Your task to perform on an android device: Is it going to rain tomorrow? Image 0: 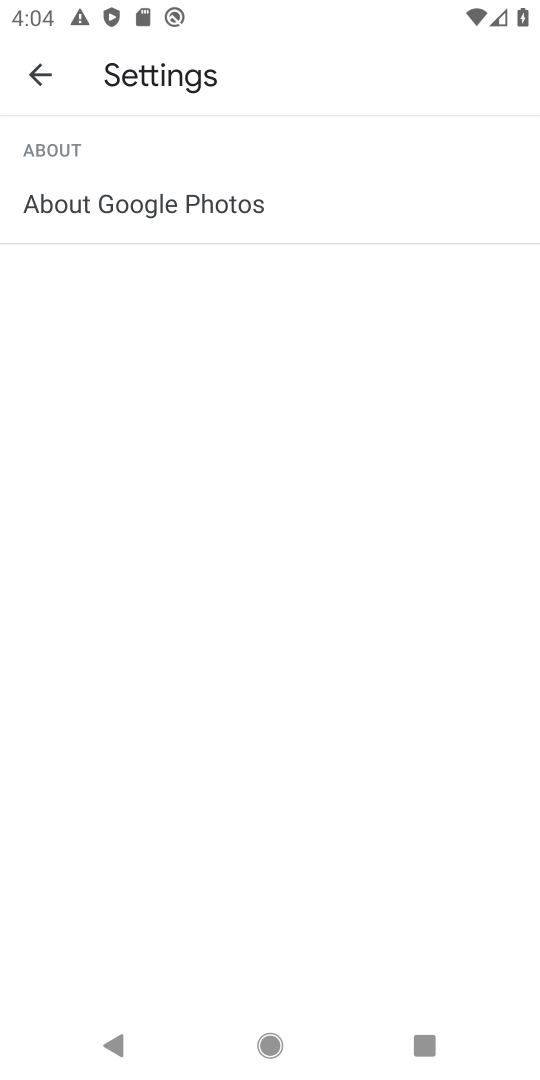
Step 0: press home button
Your task to perform on an android device: Is it going to rain tomorrow? Image 1: 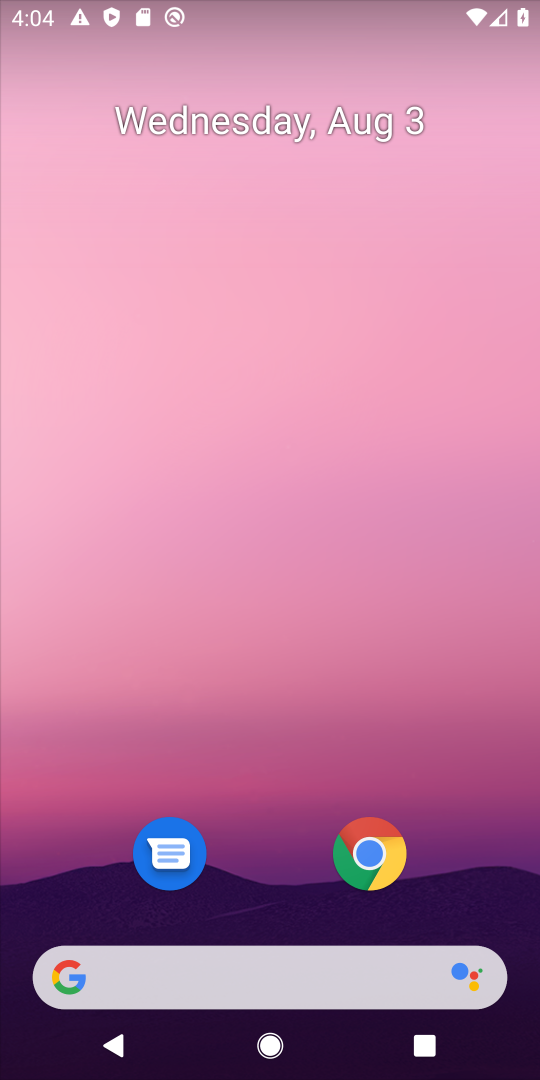
Step 1: drag from (272, 919) to (321, 102)
Your task to perform on an android device: Is it going to rain tomorrow? Image 2: 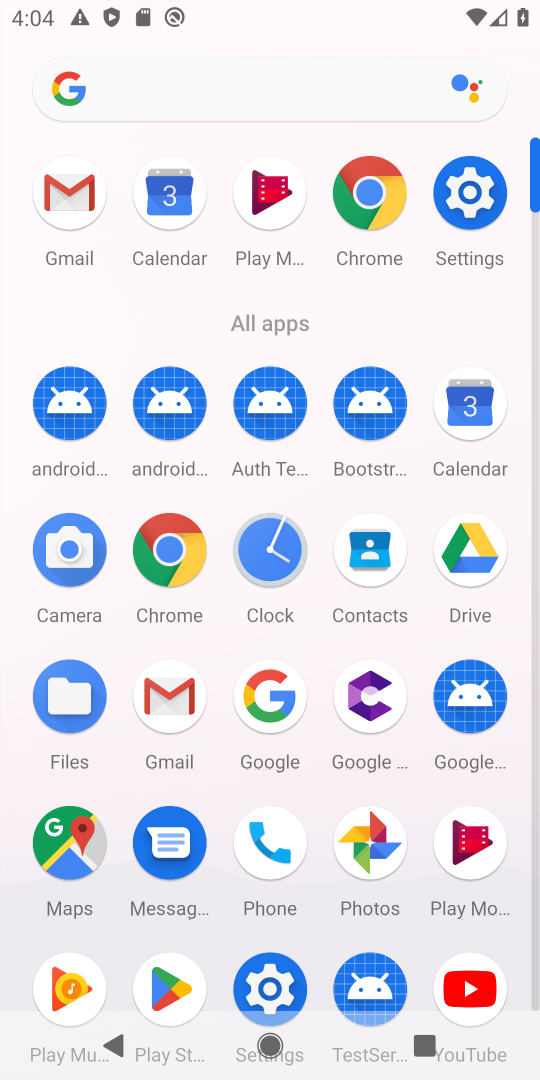
Step 2: click (265, 707)
Your task to perform on an android device: Is it going to rain tomorrow? Image 3: 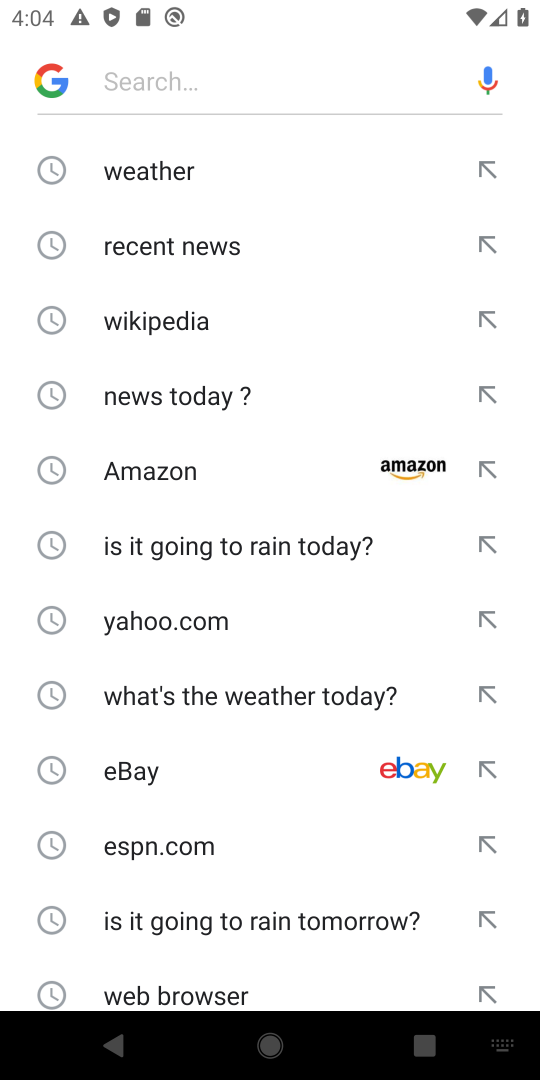
Step 3: click (139, 174)
Your task to perform on an android device: Is it going to rain tomorrow? Image 4: 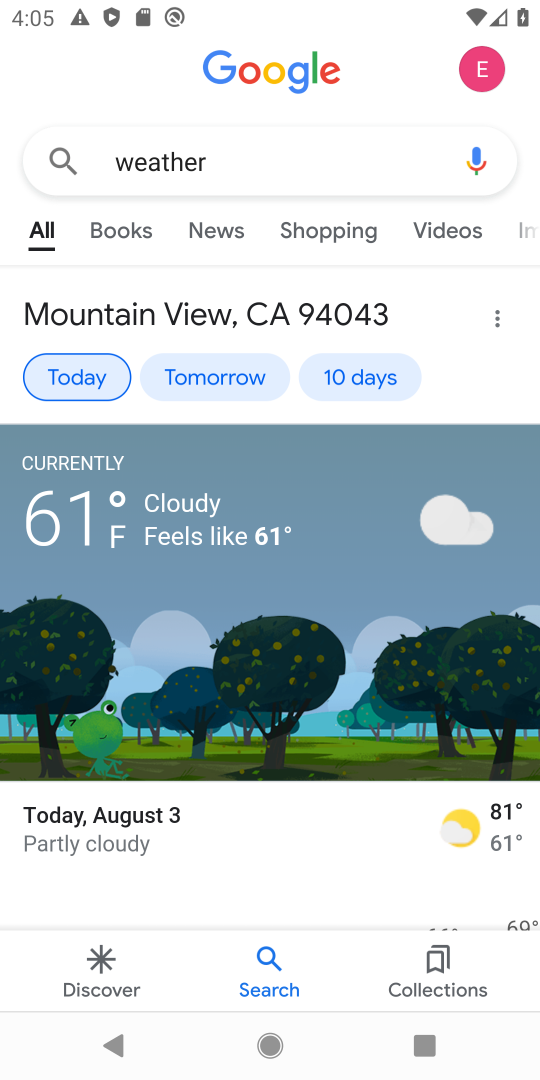
Step 4: click (217, 380)
Your task to perform on an android device: Is it going to rain tomorrow? Image 5: 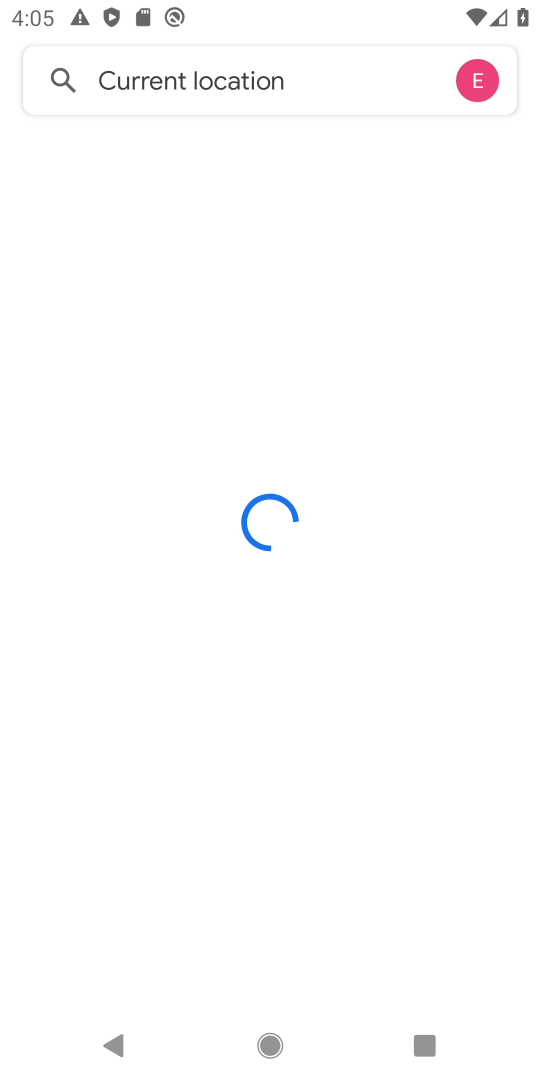
Step 5: click (212, 368)
Your task to perform on an android device: Is it going to rain tomorrow? Image 6: 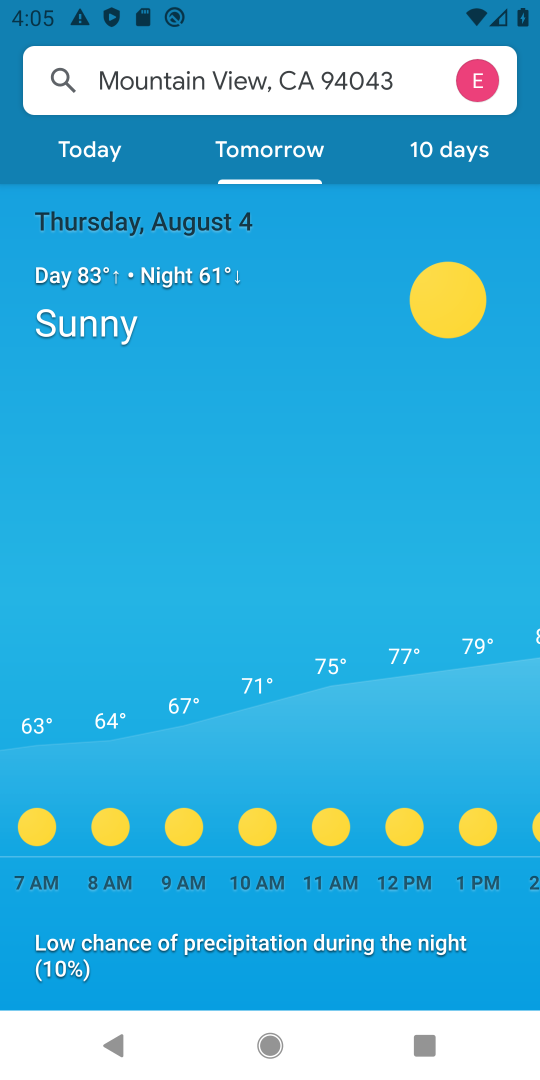
Step 6: task complete